Your task to perform on an android device: Open the calendar and show me this week's events? Image 0: 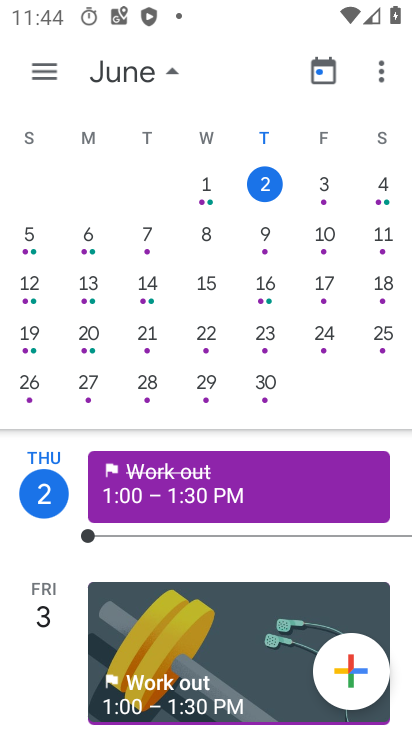
Step 0: press home button
Your task to perform on an android device: Open the calendar and show me this week's events? Image 1: 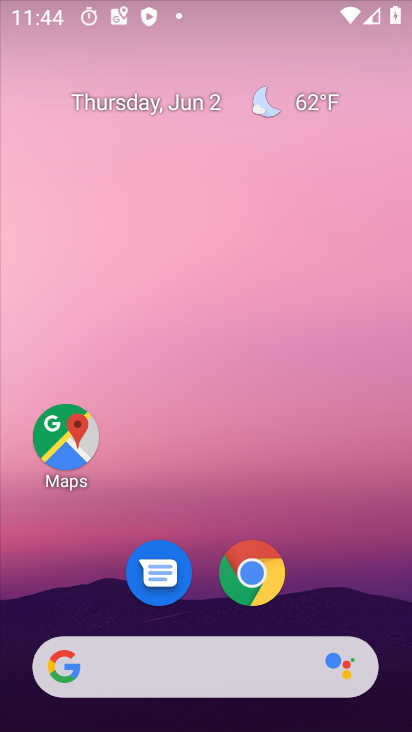
Step 1: drag from (287, 619) to (356, 15)
Your task to perform on an android device: Open the calendar and show me this week's events? Image 2: 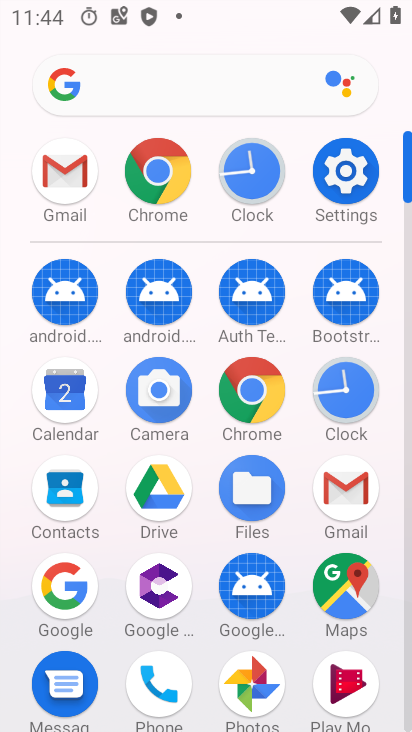
Step 2: click (69, 393)
Your task to perform on an android device: Open the calendar and show me this week's events? Image 3: 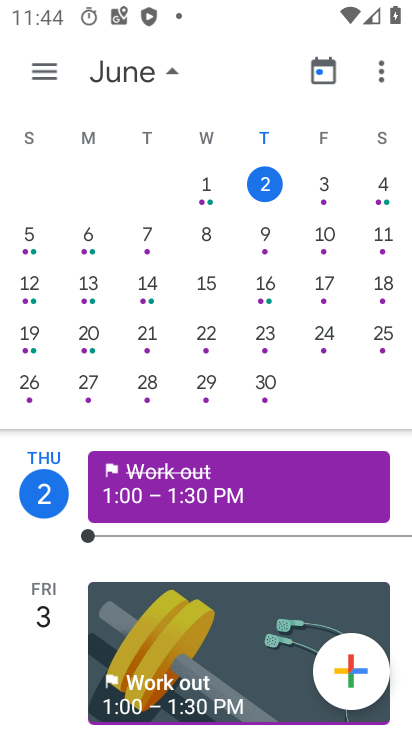
Step 3: click (396, 189)
Your task to perform on an android device: Open the calendar and show me this week's events? Image 4: 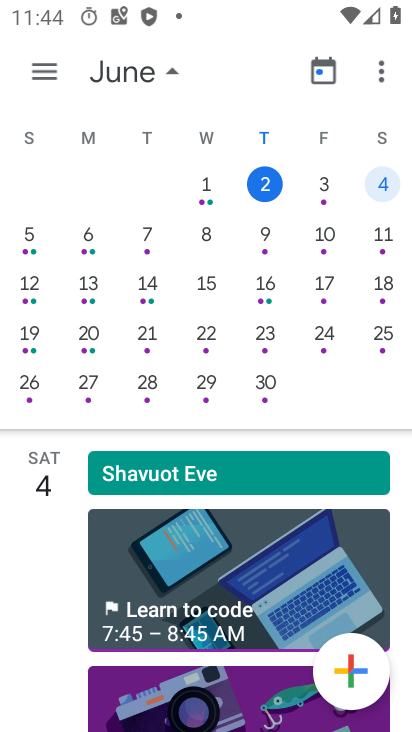
Step 4: task complete